Your task to perform on an android device: change the upload size in google photos Image 0: 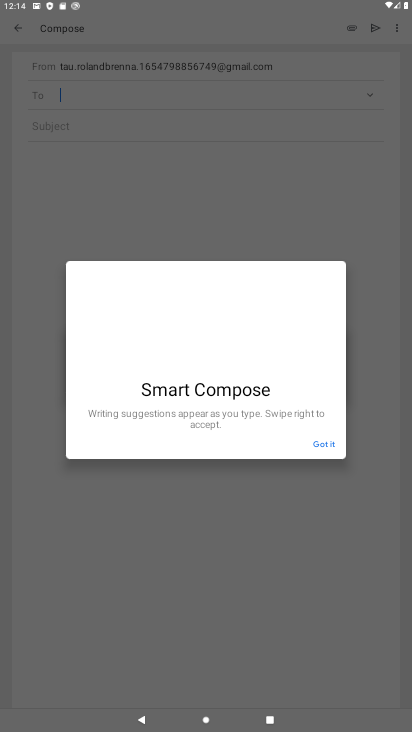
Step 0: press home button
Your task to perform on an android device: change the upload size in google photos Image 1: 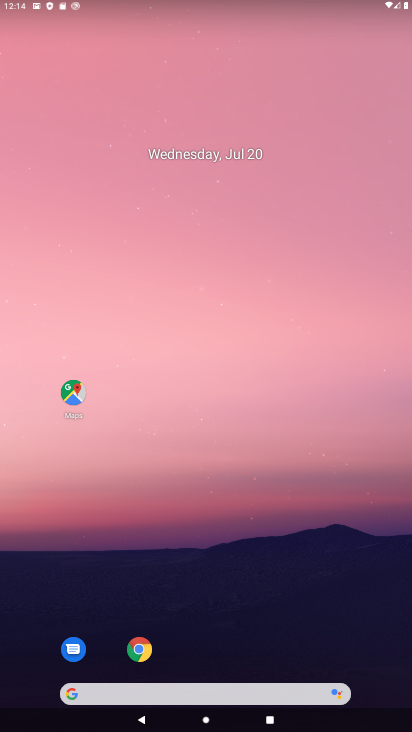
Step 1: drag from (194, 680) to (272, 83)
Your task to perform on an android device: change the upload size in google photos Image 2: 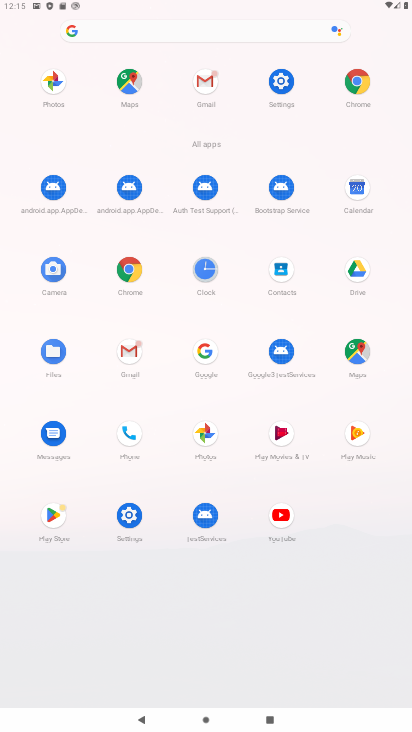
Step 2: click (201, 430)
Your task to perform on an android device: change the upload size in google photos Image 3: 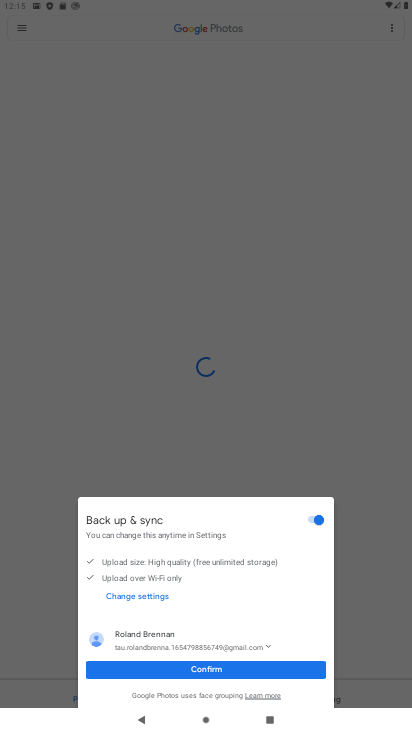
Step 3: click (202, 671)
Your task to perform on an android device: change the upload size in google photos Image 4: 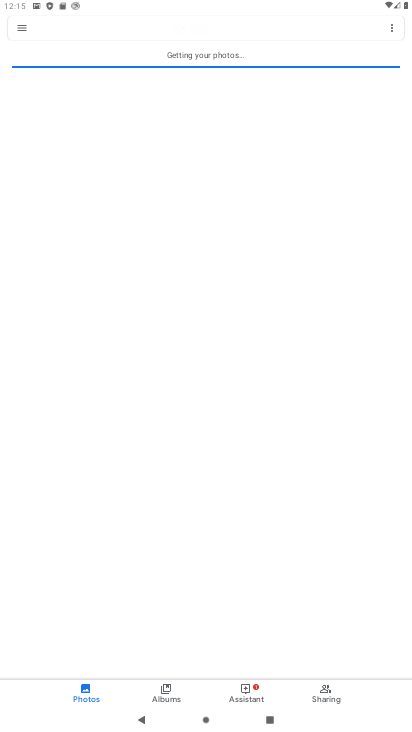
Step 4: click (19, 28)
Your task to perform on an android device: change the upload size in google photos Image 5: 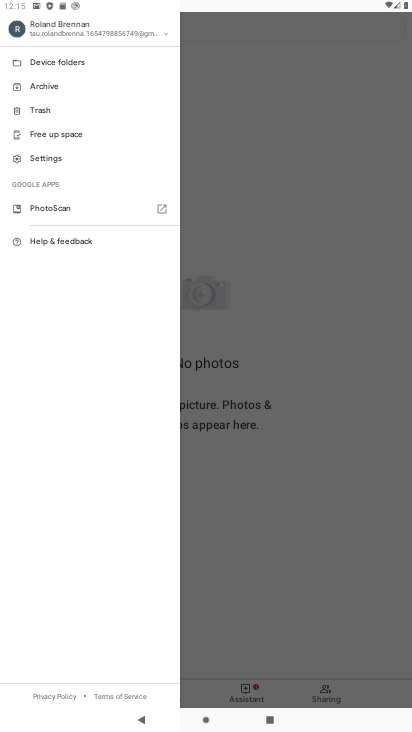
Step 5: click (44, 160)
Your task to perform on an android device: change the upload size in google photos Image 6: 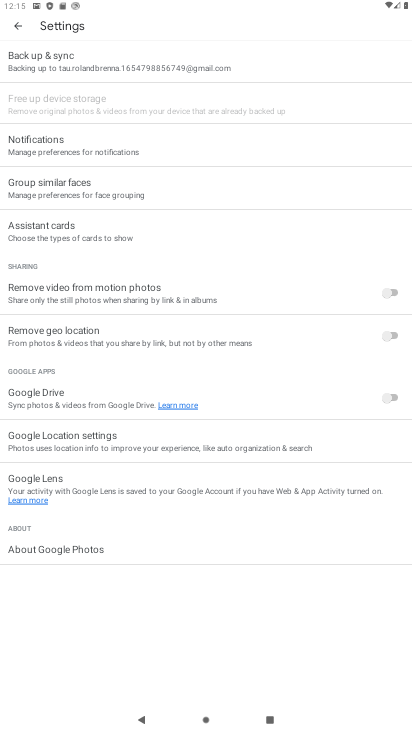
Step 6: click (70, 62)
Your task to perform on an android device: change the upload size in google photos Image 7: 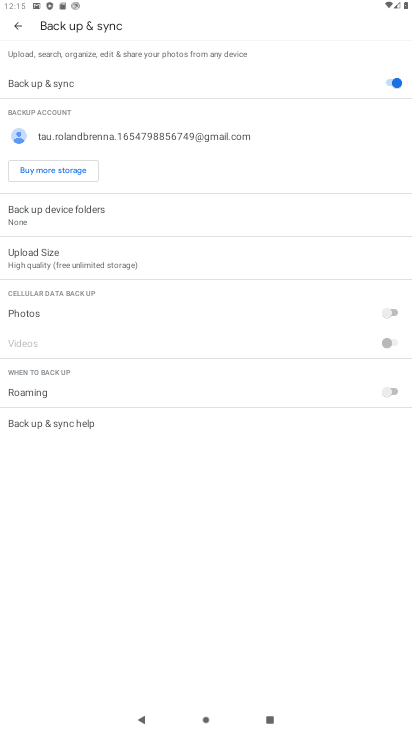
Step 7: click (65, 261)
Your task to perform on an android device: change the upload size in google photos Image 8: 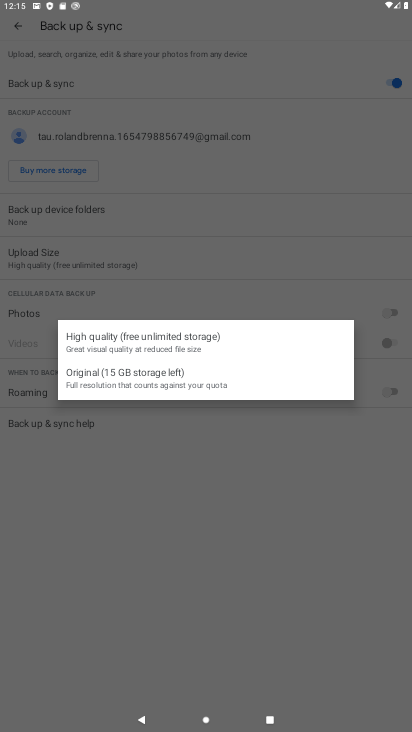
Step 8: click (92, 375)
Your task to perform on an android device: change the upload size in google photos Image 9: 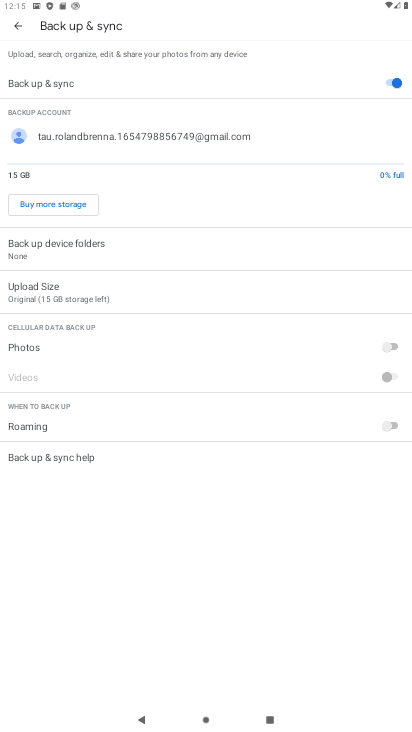
Step 9: task complete